Your task to perform on an android device: uninstall "Google Play Games" Image 0: 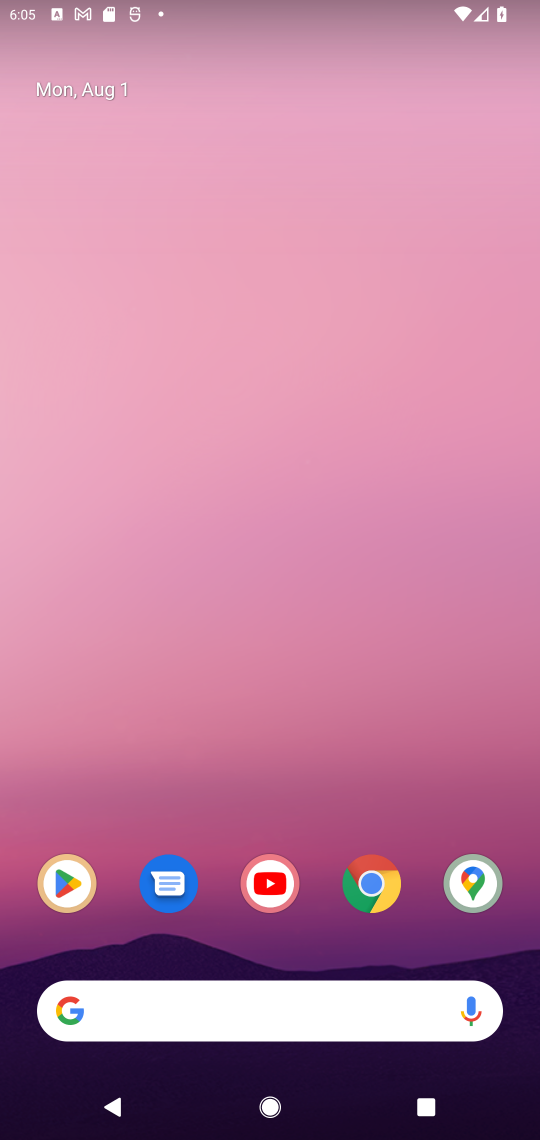
Step 0: click (62, 889)
Your task to perform on an android device: uninstall "Google Play Games" Image 1: 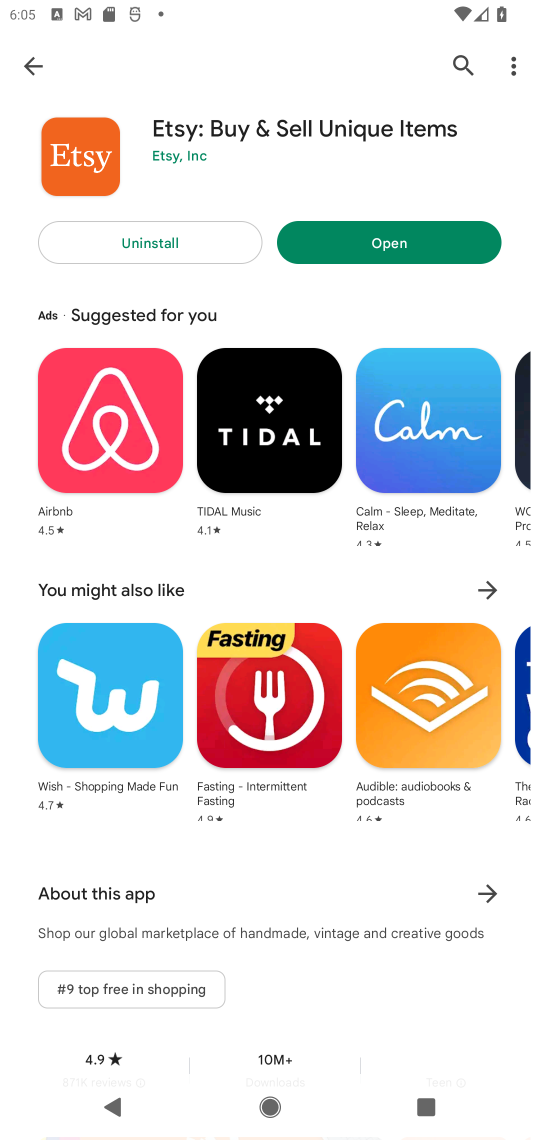
Step 1: click (22, 62)
Your task to perform on an android device: uninstall "Google Play Games" Image 2: 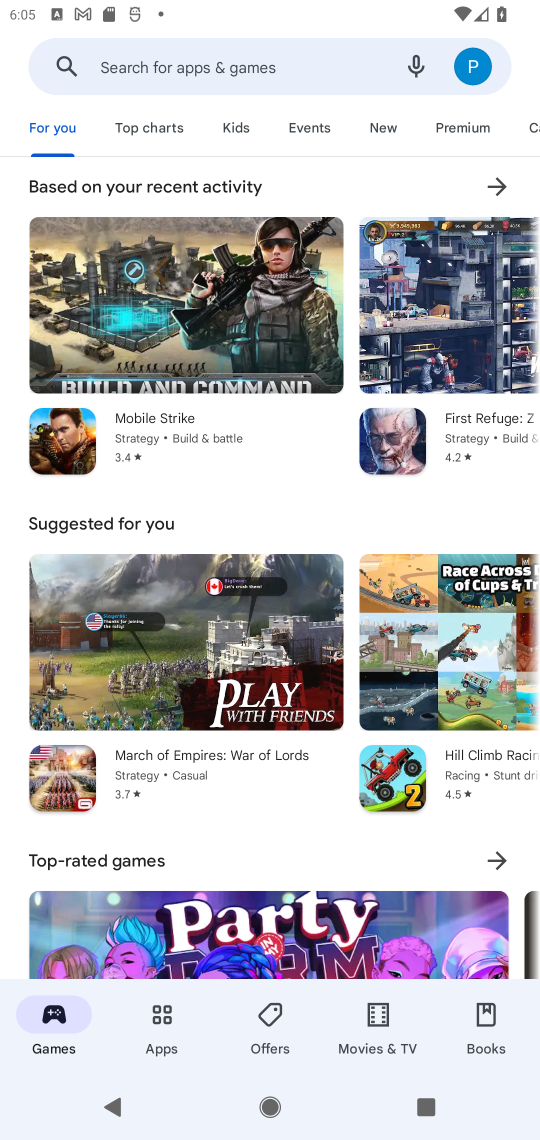
Step 2: click (219, 81)
Your task to perform on an android device: uninstall "Google Play Games" Image 3: 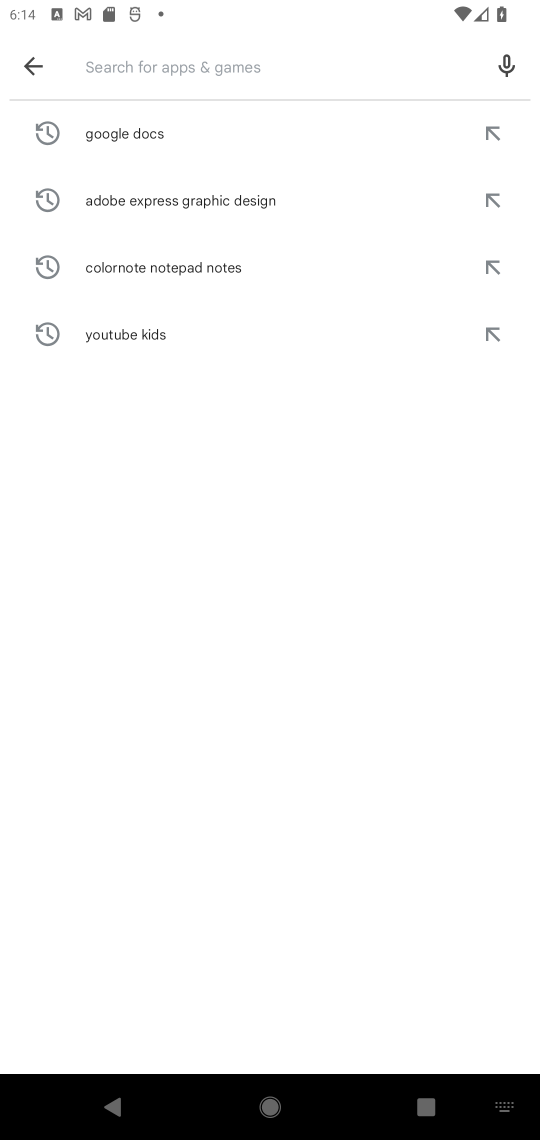
Step 3: press home button
Your task to perform on an android device: uninstall "Google Play Games" Image 4: 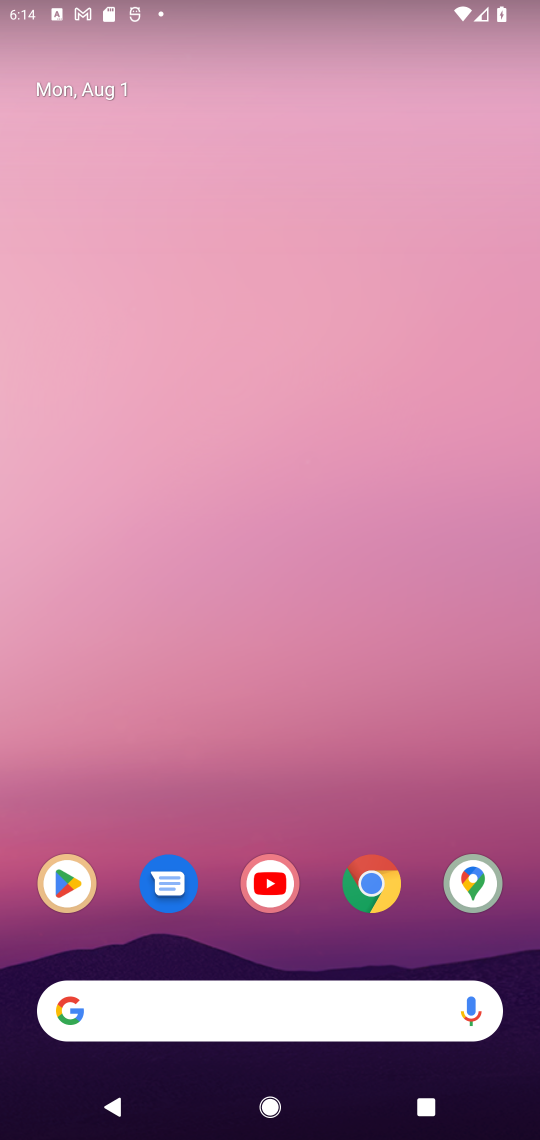
Step 4: click (67, 876)
Your task to perform on an android device: uninstall "Google Play Games" Image 5: 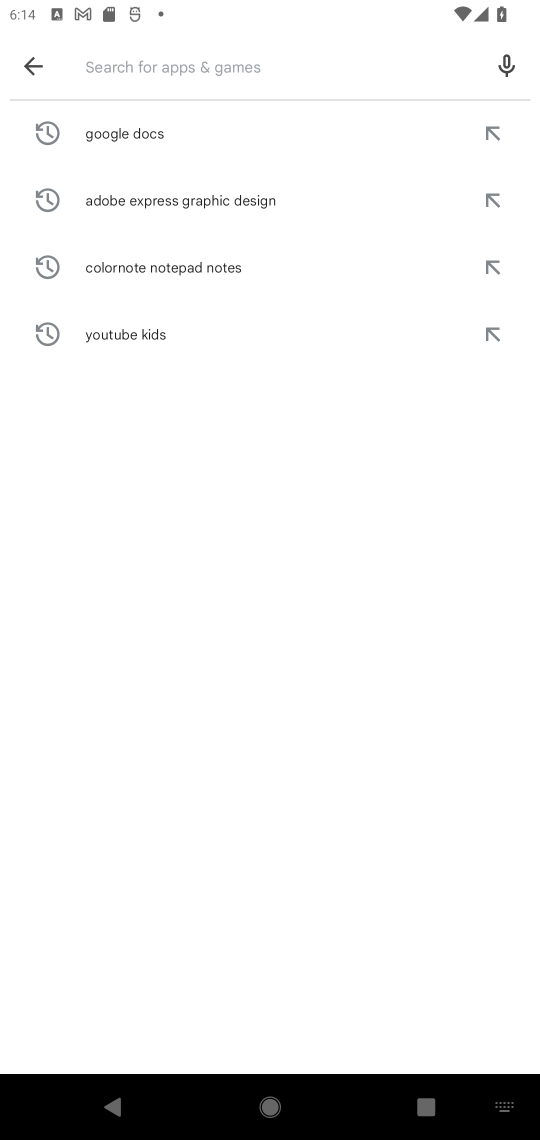
Step 5: type "google play games"
Your task to perform on an android device: uninstall "Google Play Games" Image 6: 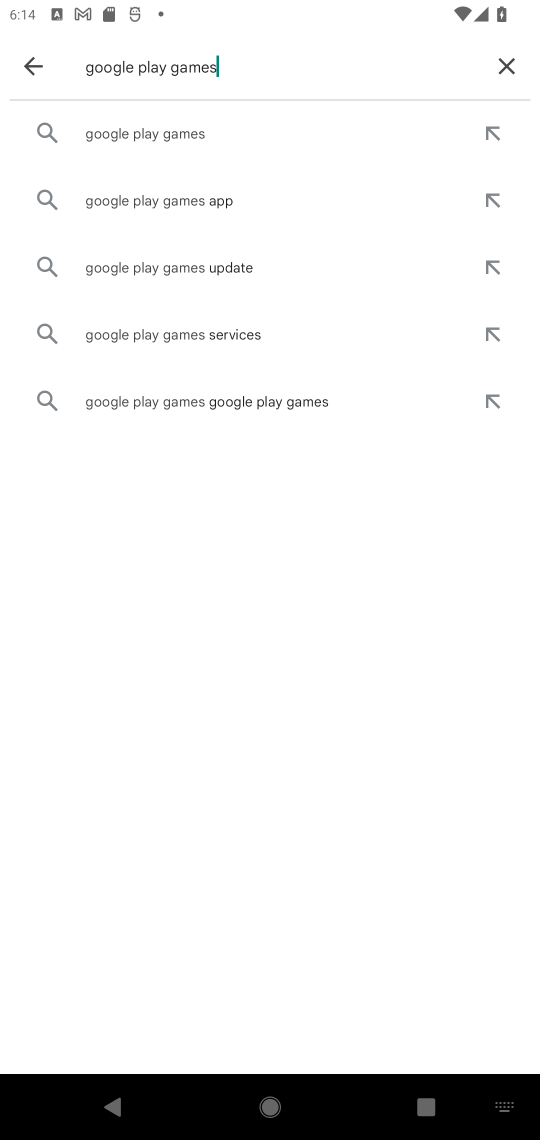
Step 6: click (168, 137)
Your task to perform on an android device: uninstall "Google Play Games" Image 7: 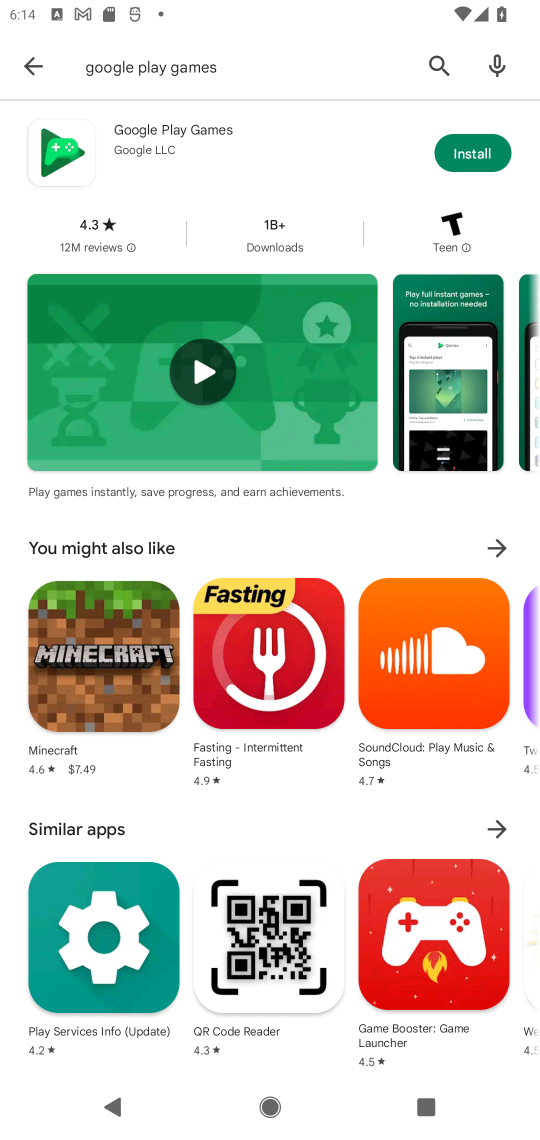
Step 7: task complete